Your task to perform on an android device: Turn on the flashlight Image 0: 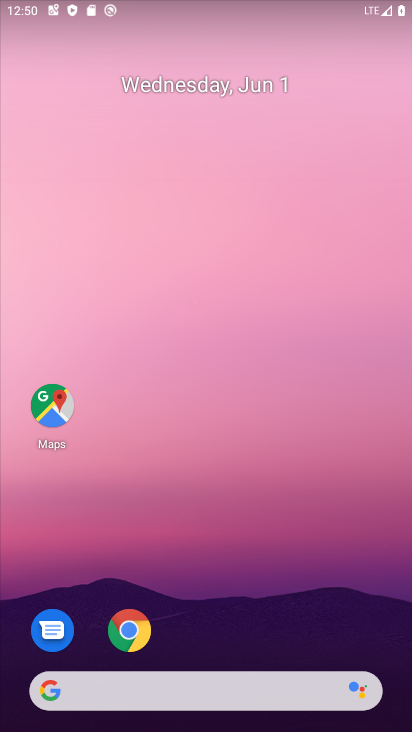
Step 0: drag from (271, 6) to (187, 401)
Your task to perform on an android device: Turn on the flashlight Image 1: 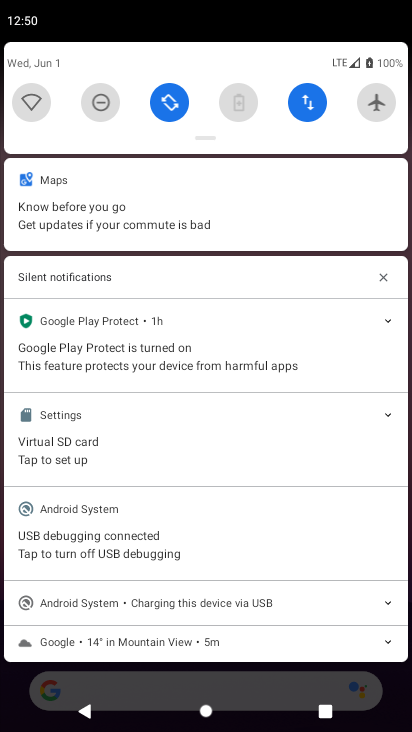
Step 1: click (19, 107)
Your task to perform on an android device: Turn on the flashlight Image 2: 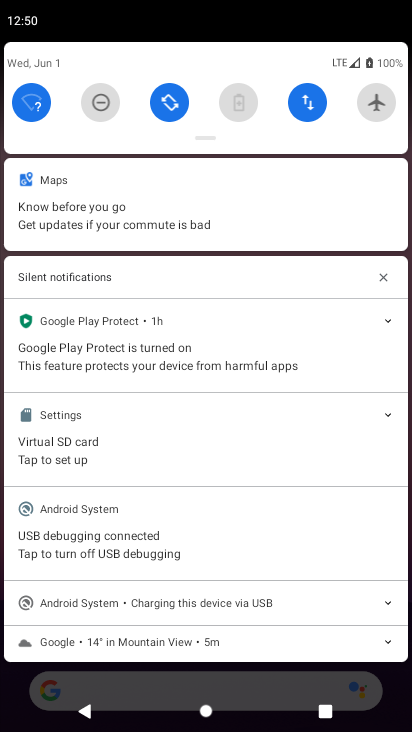
Step 2: task complete